Your task to perform on an android device: Open calendar and show me the first week of next month Image 0: 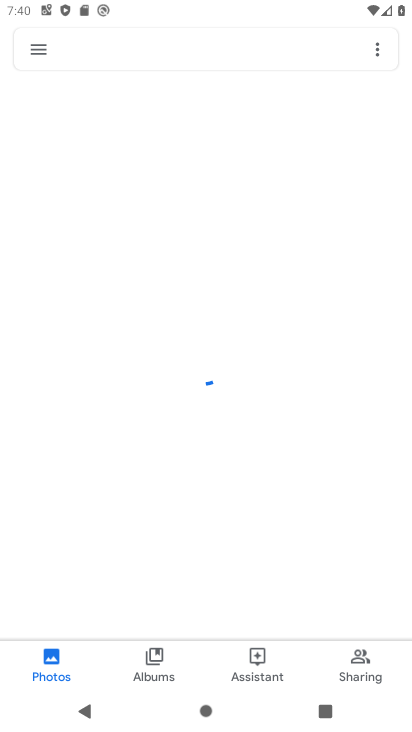
Step 0: press home button
Your task to perform on an android device: Open calendar and show me the first week of next month Image 1: 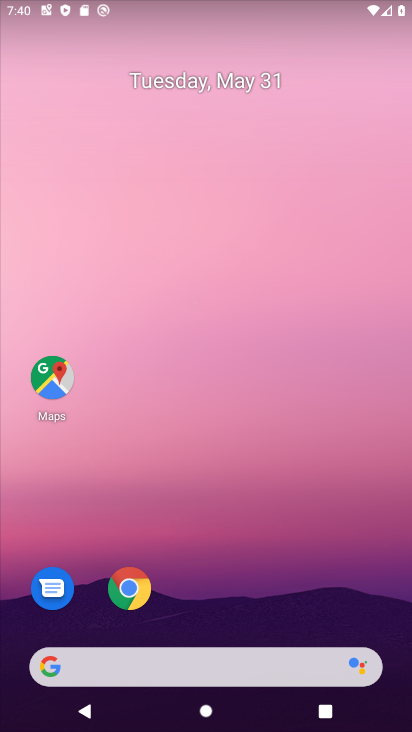
Step 1: drag from (201, 622) to (245, 222)
Your task to perform on an android device: Open calendar and show me the first week of next month Image 2: 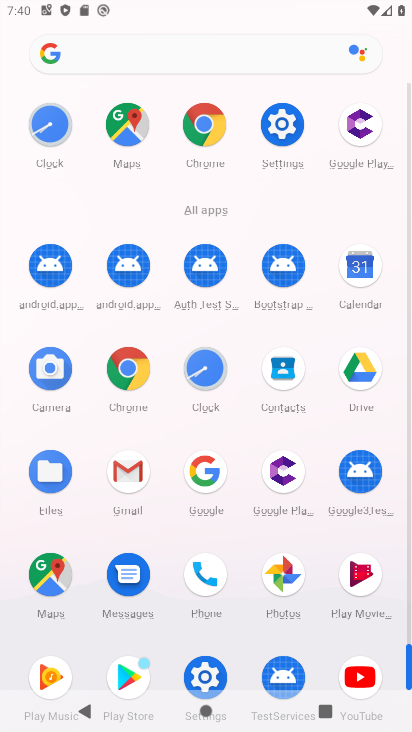
Step 2: click (354, 275)
Your task to perform on an android device: Open calendar and show me the first week of next month Image 3: 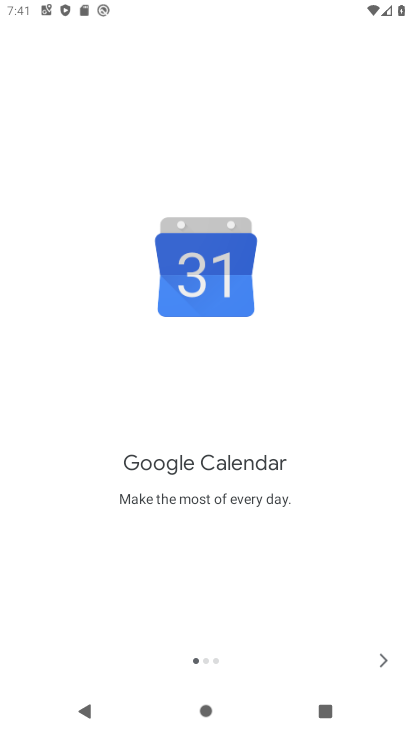
Step 3: click (385, 662)
Your task to perform on an android device: Open calendar and show me the first week of next month Image 4: 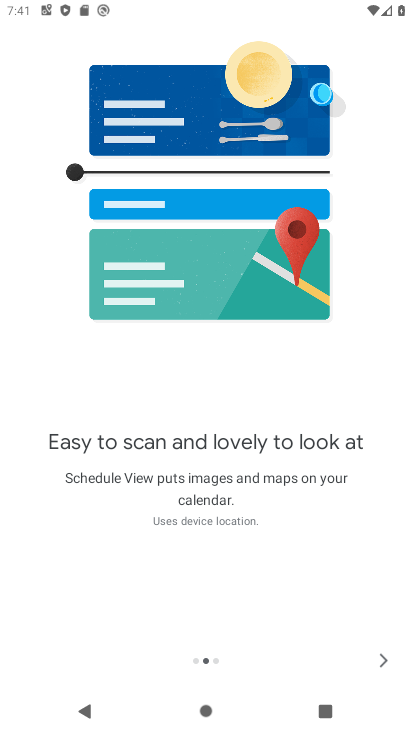
Step 4: click (385, 659)
Your task to perform on an android device: Open calendar and show me the first week of next month Image 5: 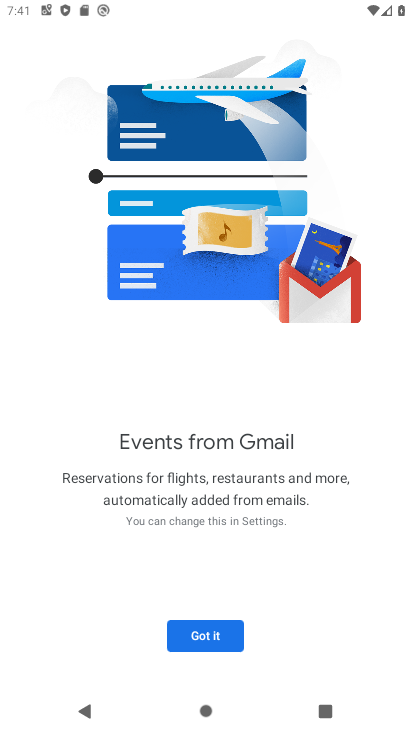
Step 5: click (189, 635)
Your task to perform on an android device: Open calendar and show me the first week of next month Image 6: 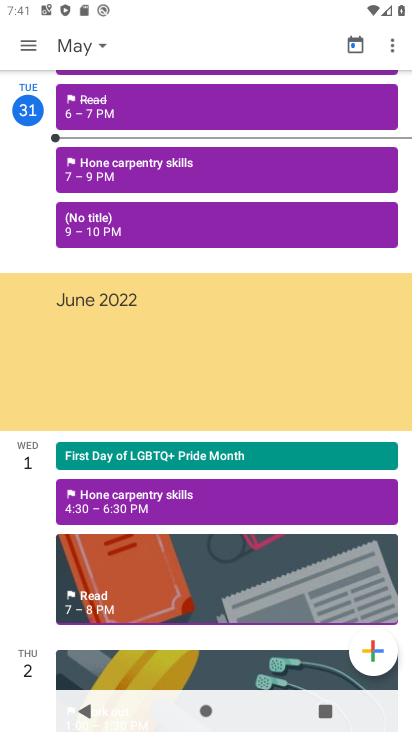
Step 6: click (28, 27)
Your task to perform on an android device: Open calendar and show me the first week of next month Image 7: 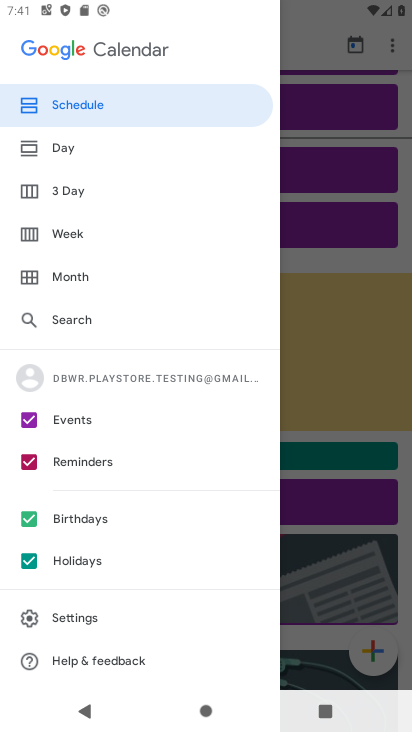
Step 7: click (73, 238)
Your task to perform on an android device: Open calendar and show me the first week of next month Image 8: 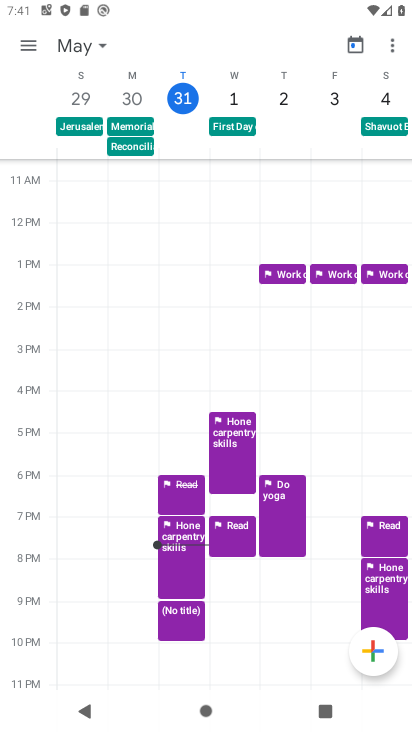
Step 8: task complete